Your task to perform on an android device: Go to internet settings Image 0: 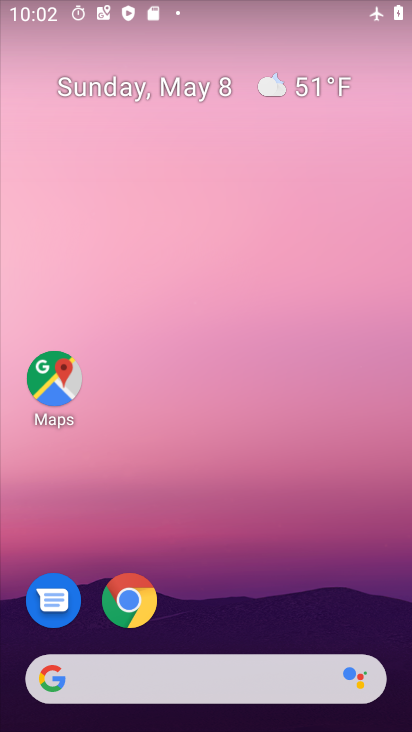
Step 0: drag from (284, 581) to (247, 0)
Your task to perform on an android device: Go to internet settings Image 1: 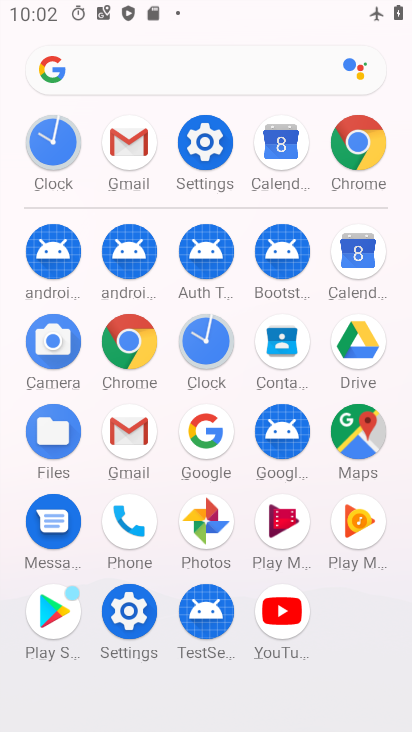
Step 1: click (203, 136)
Your task to perform on an android device: Go to internet settings Image 2: 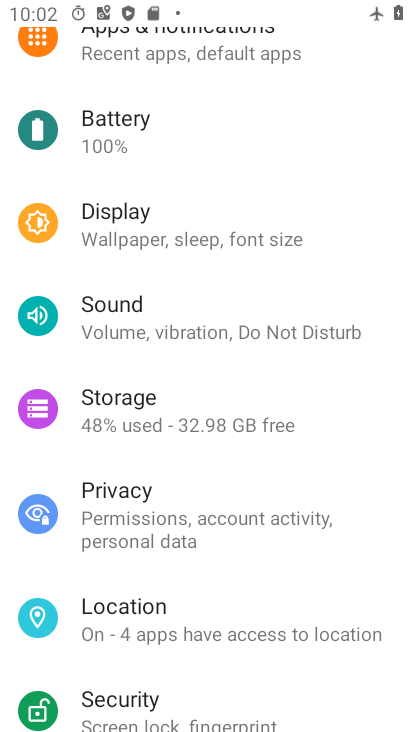
Step 2: drag from (284, 176) to (277, 614)
Your task to perform on an android device: Go to internet settings Image 3: 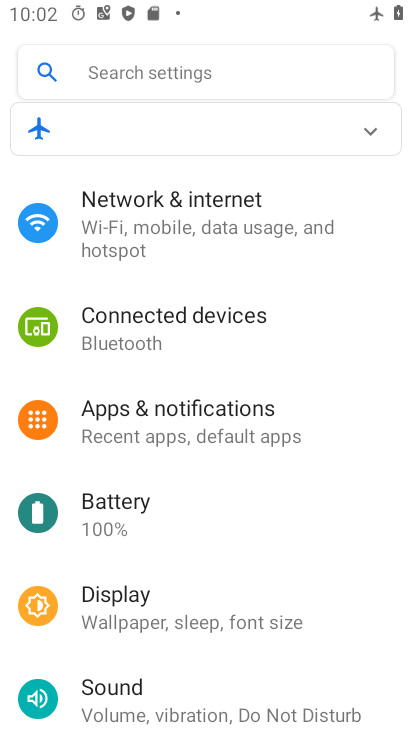
Step 3: click (216, 224)
Your task to perform on an android device: Go to internet settings Image 4: 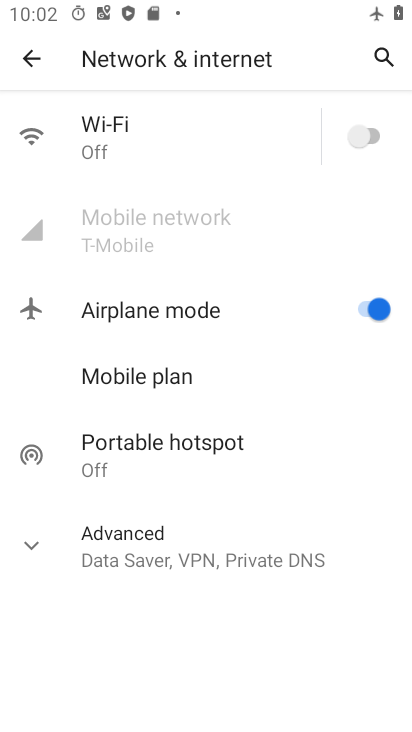
Step 4: click (68, 533)
Your task to perform on an android device: Go to internet settings Image 5: 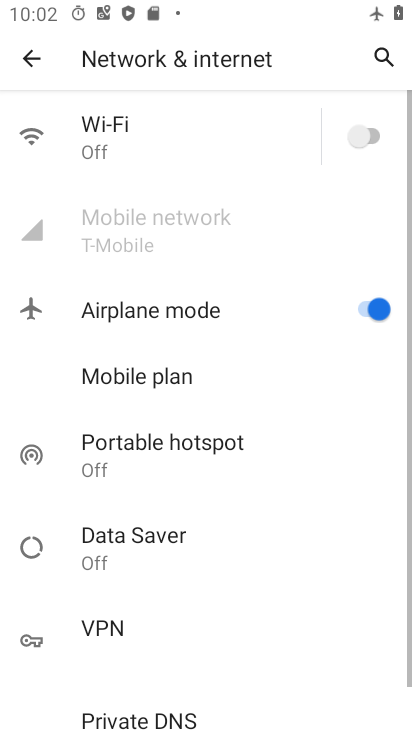
Step 5: task complete